Your task to perform on an android device: Search for "custom wallet" on Etsy. Image 0: 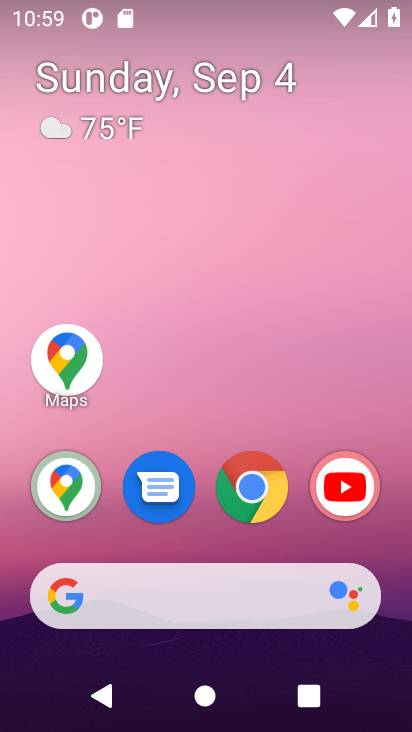
Step 0: click (314, 527)
Your task to perform on an android device: Search for "custom wallet" on Etsy. Image 1: 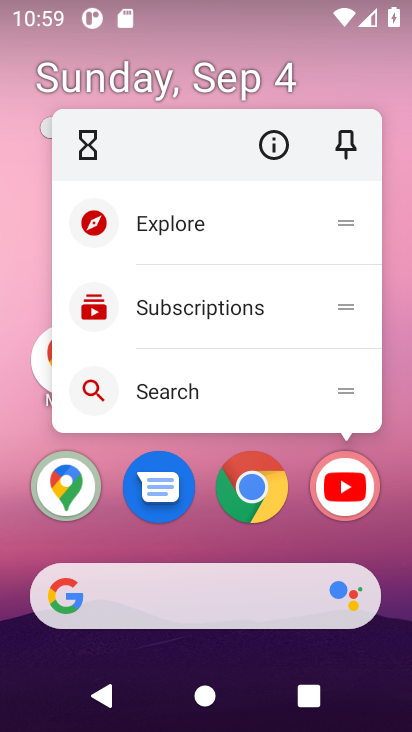
Step 1: click (326, 501)
Your task to perform on an android device: Search for "custom wallet" on Etsy. Image 2: 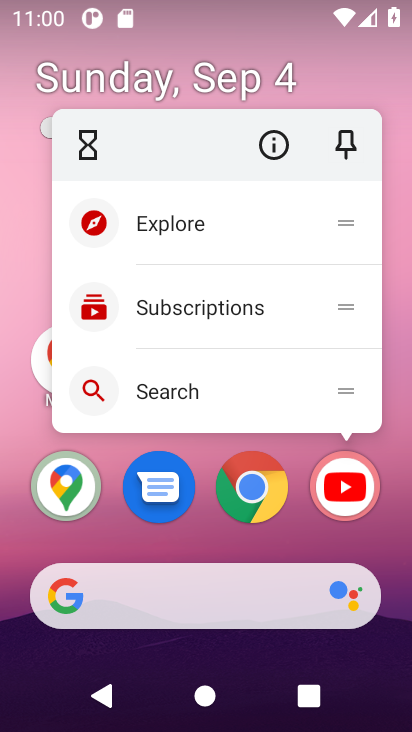
Step 2: task complete